Your task to perform on an android device: Turn on the flashlight Image 0: 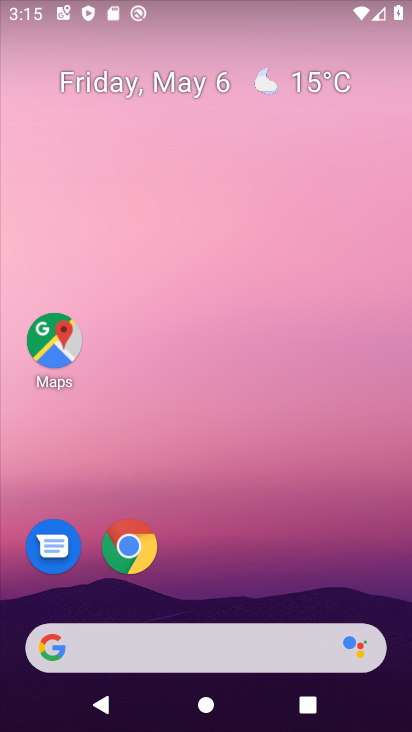
Step 0: drag from (259, 7) to (257, 395)
Your task to perform on an android device: Turn on the flashlight Image 1: 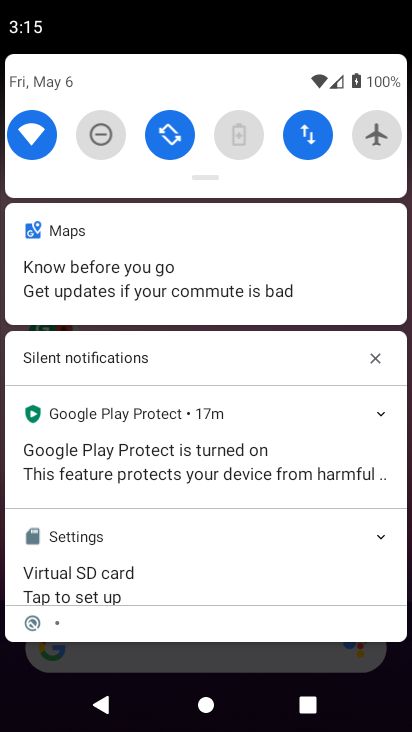
Step 1: drag from (253, 163) to (263, 425)
Your task to perform on an android device: Turn on the flashlight Image 2: 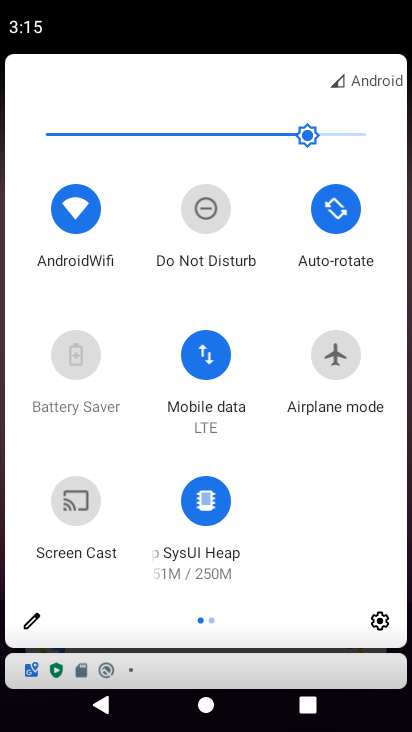
Step 2: drag from (376, 308) to (34, 294)
Your task to perform on an android device: Turn on the flashlight Image 3: 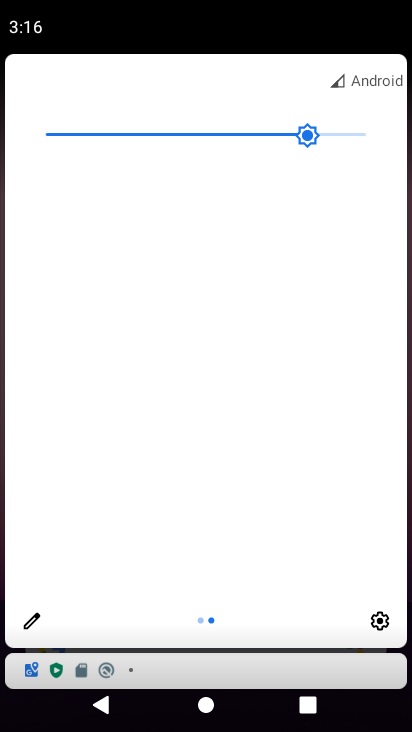
Step 3: click (28, 619)
Your task to perform on an android device: Turn on the flashlight Image 4: 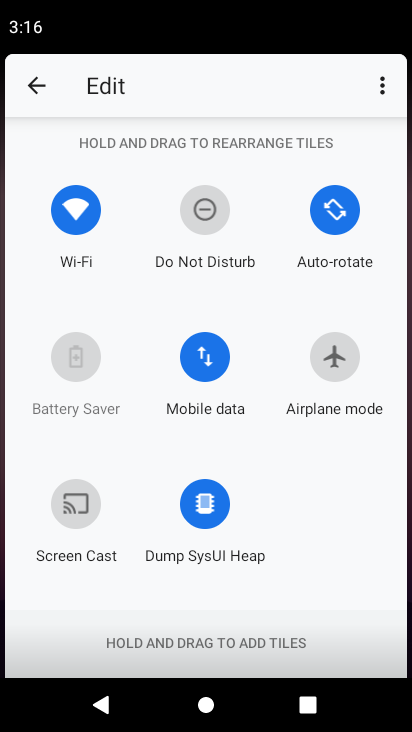
Step 4: task complete